Your task to perform on an android device: set the timer Image 0: 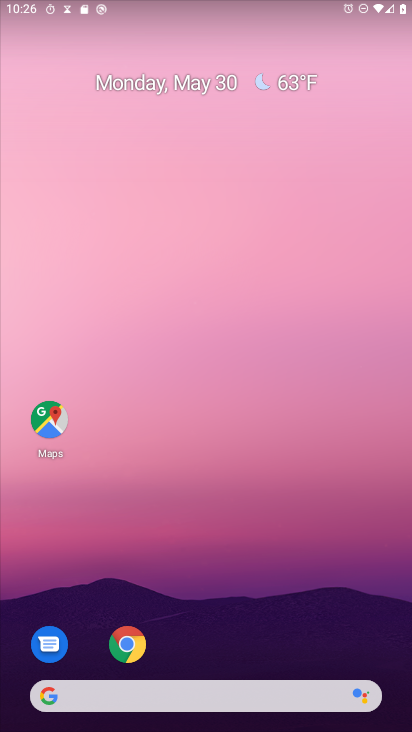
Step 0: drag from (199, 600) to (251, 28)
Your task to perform on an android device: set the timer Image 1: 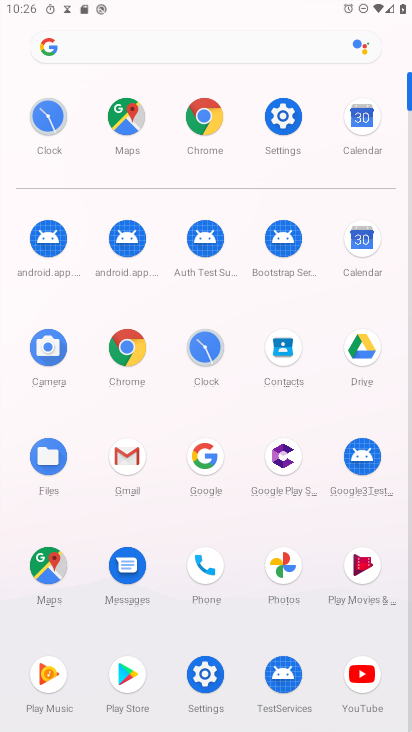
Step 1: click (211, 352)
Your task to perform on an android device: set the timer Image 2: 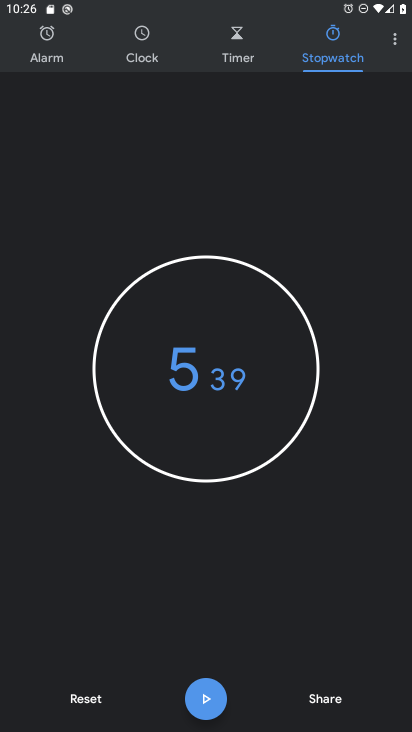
Step 2: click (241, 50)
Your task to perform on an android device: set the timer Image 3: 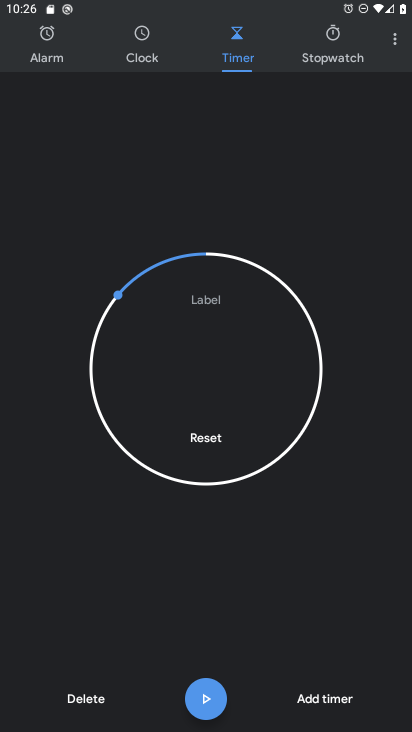
Step 3: click (202, 699)
Your task to perform on an android device: set the timer Image 4: 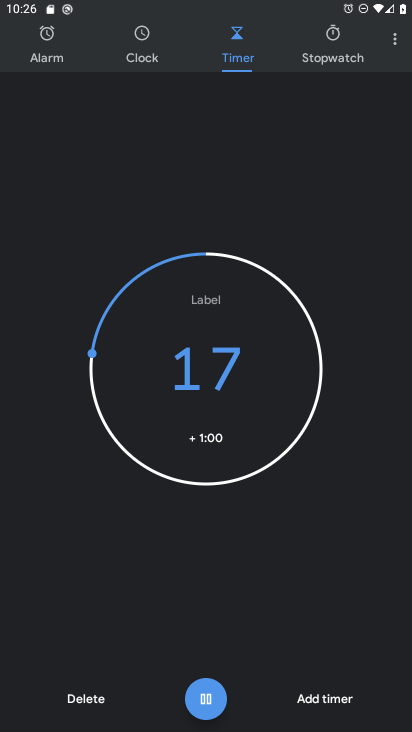
Step 4: click (204, 699)
Your task to perform on an android device: set the timer Image 5: 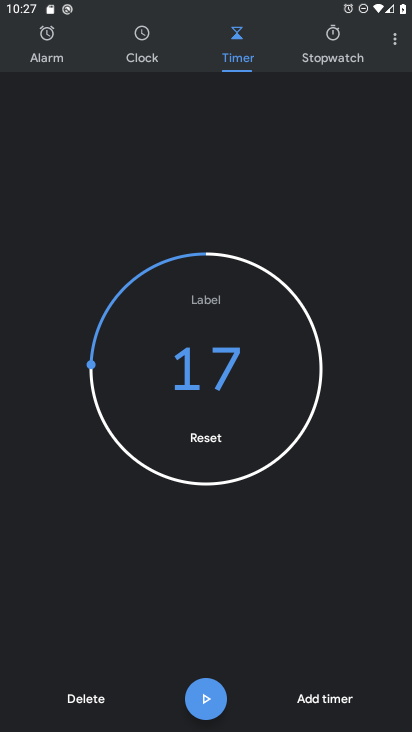
Step 5: task complete